Your task to perform on an android device: Open maps Image 0: 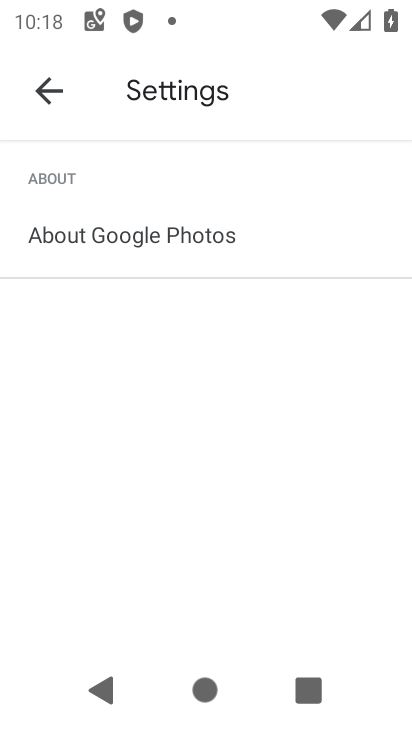
Step 0: press home button
Your task to perform on an android device: Open maps Image 1: 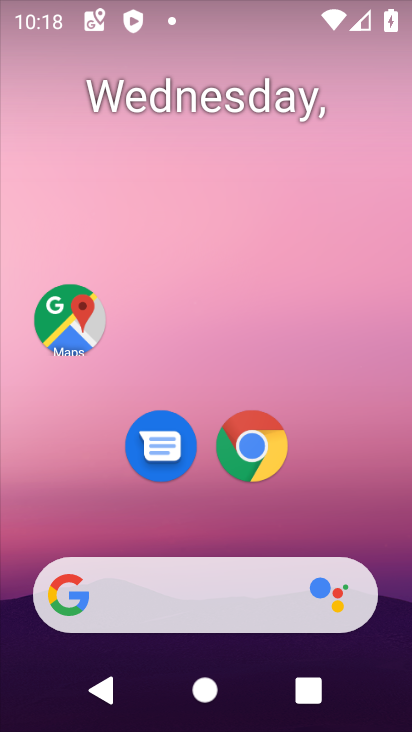
Step 1: click (51, 310)
Your task to perform on an android device: Open maps Image 2: 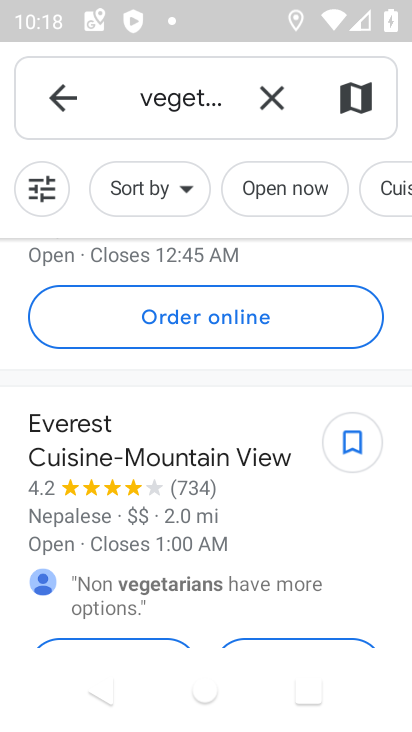
Step 2: task complete